Your task to perform on an android device: Open Google Chrome and click the shortcut for Amazon.com Image 0: 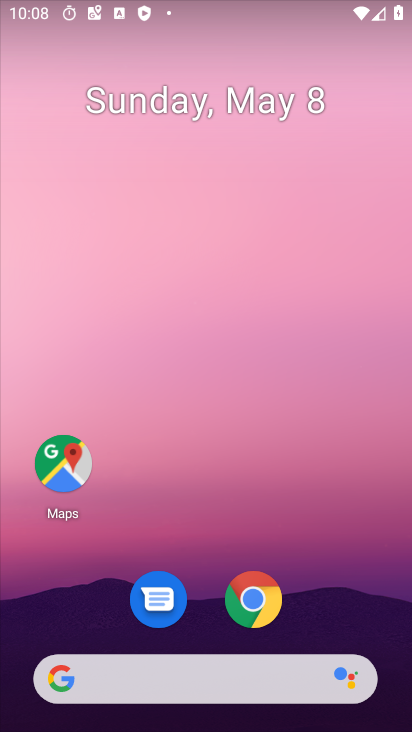
Step 0: drag from (223, 577) to (301, 27)
Your task to perform on an android device: Open Google Chrome and click the shortcut for Amazon.com Image 1: 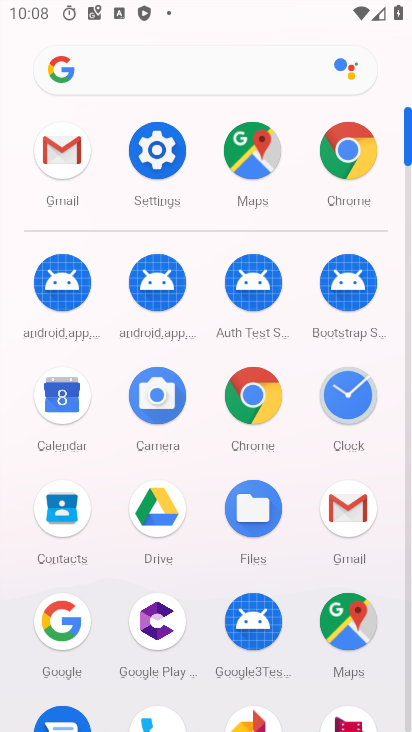
Step 1: click (353, 154)
Your task to perform on an android device: Open Google Chrome and click the shortcut for Amazon.com Image 2: 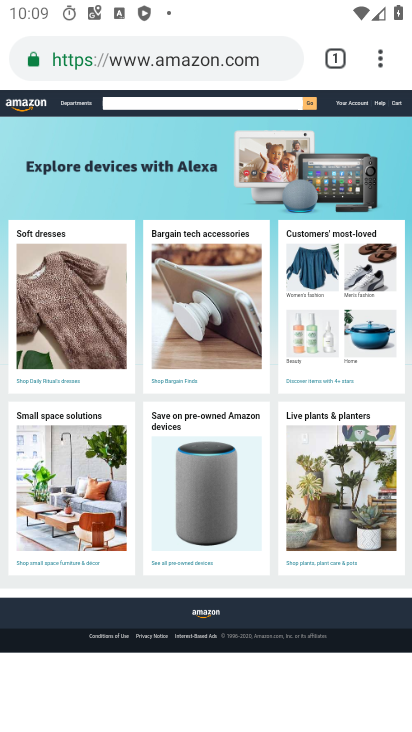
Step 2: task complete